Your task to perform on an android device: Open Youtube and go to "Your channel" Image 0: 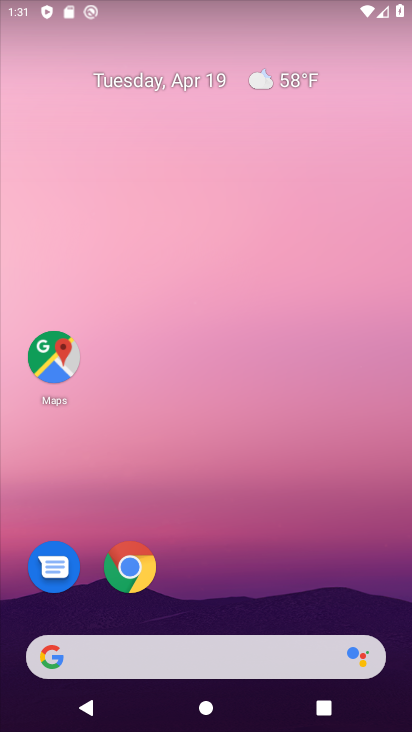
Step 0: drag from (277, 541) to (295, 127)
Your task to perform on an android device: Open Youtube and go to "Your channel" Image 1: 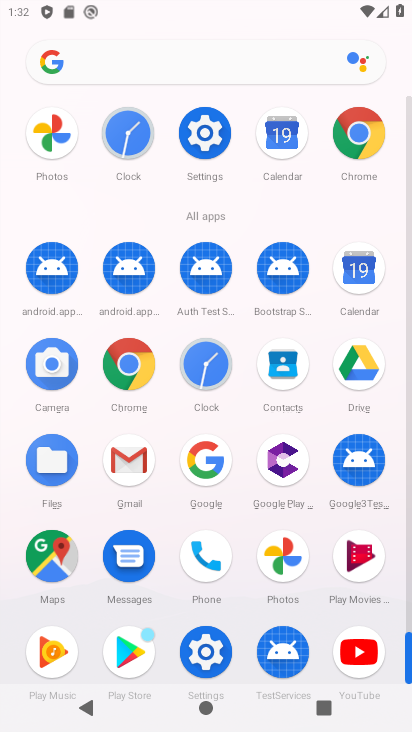
Step 1: click (368, 662)
Your task to perform on an android device: Open Youtube and go to "Your channel" Image 2: 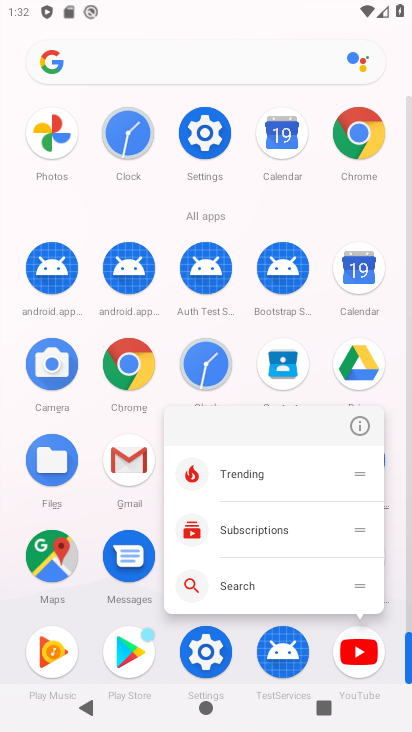
Step 2: click (353, 666)
Your task to perform on an android device: Open Youtube and go to "Your channel" Image 3: 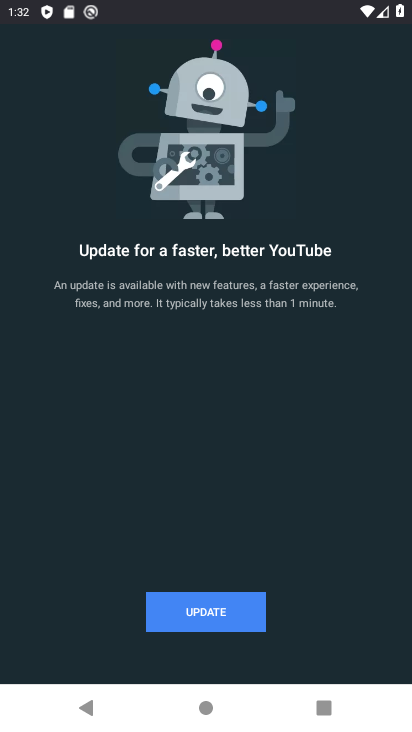
Step 3: click (209, 610)
Your task to perform on an android device: Open Youtube and go to "Your channel" Image 4: 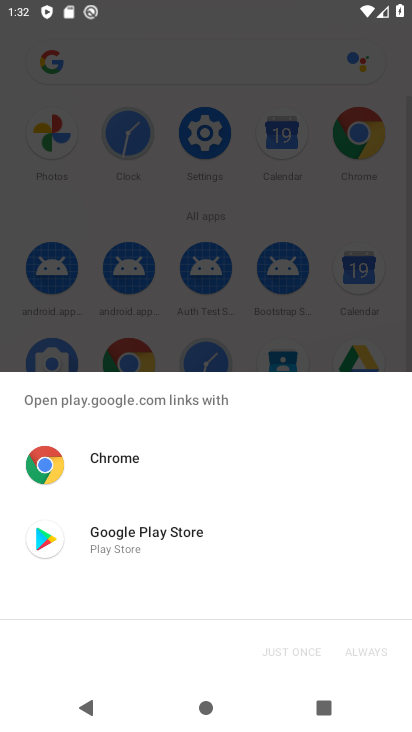
Step 4: click (127, 537)
Your task to perform on an android device: Open Youtube and go to "Your channel" Image 5: 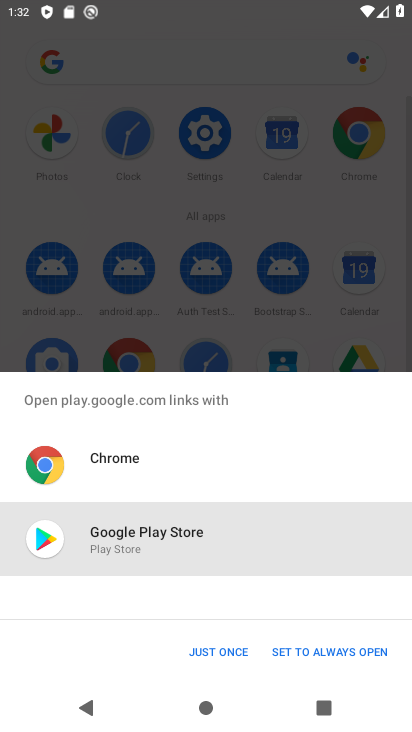
Step 5: click (233, 650)
Your task to perform on an android device: Open Youtube and go to "Your channel" Image 6: 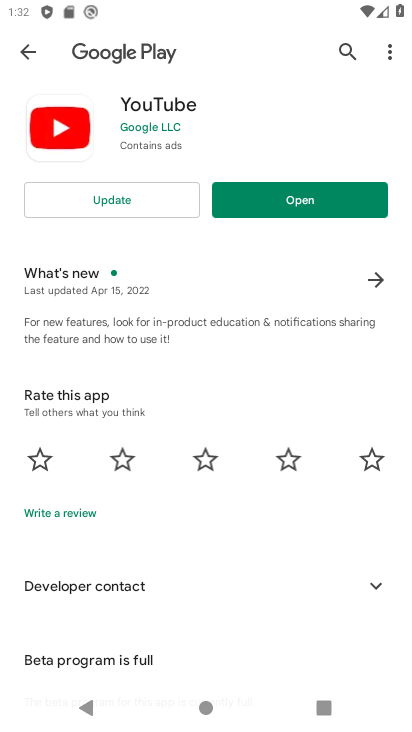
Step 6: click (139, 205)
Your task to perform on an android device: Open Youtube and go to "Your channel" Image 7: 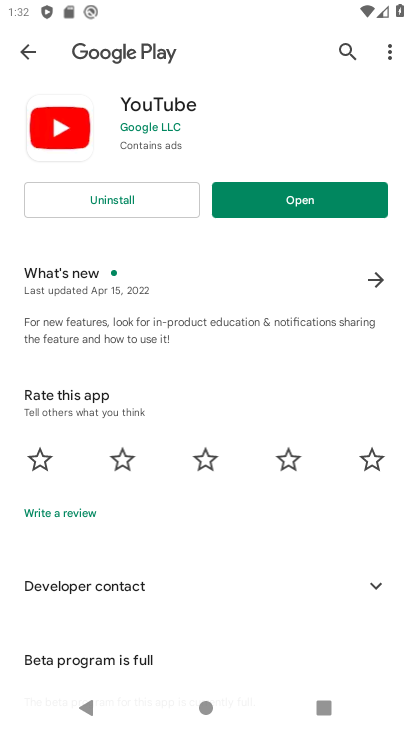
Step 7: click (318, 191)
Your task to perform on an android device: Open Youtube and go to "Your channel" Image 8: 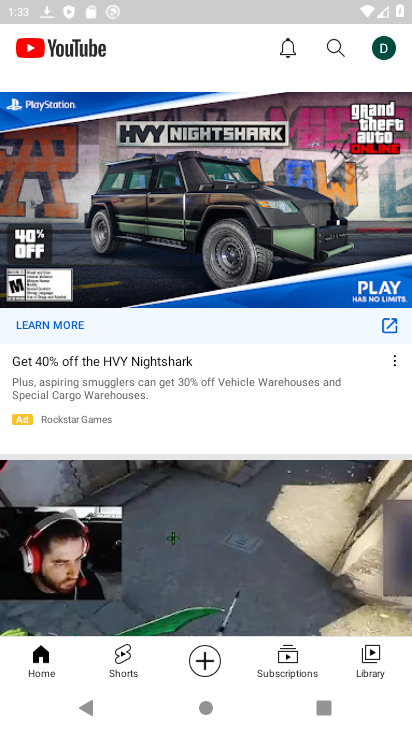
Step 8: click (381, 58)
Your task to perform on an android device: Open Youtube and go to "Your channel" Image 9: 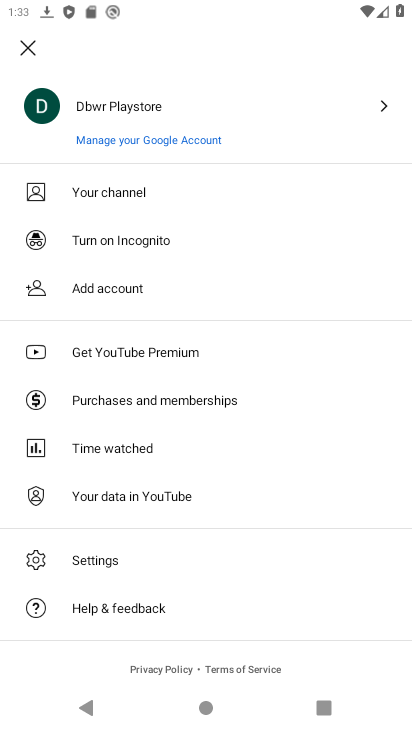
Step 9: click (130, 200)
Your task to perform on an android device: Open Youtube and go to "Your channel" Image 10: 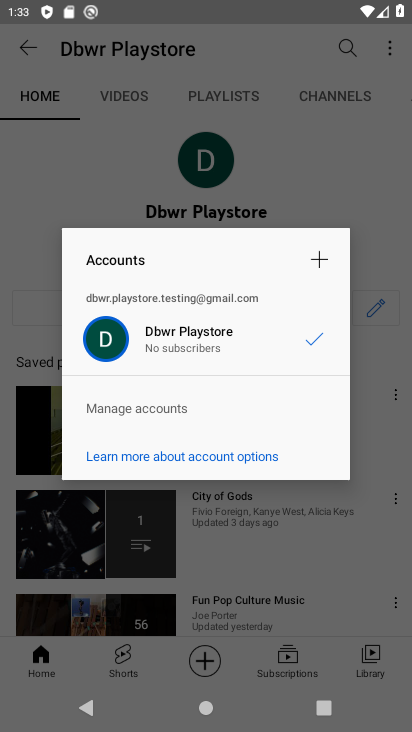
Step 10: click (321, 339)
Your task to perform on an android device: Open Youtube and go to "Your channel" Image 11: 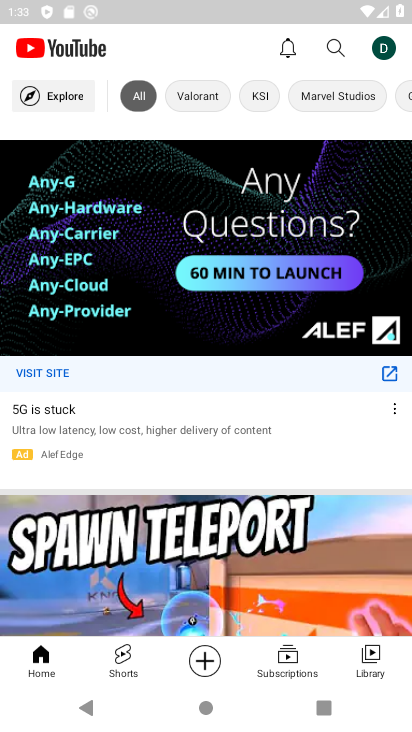
Step 11: task complete